Your task to perform on an android device: See recent photos Image 0: 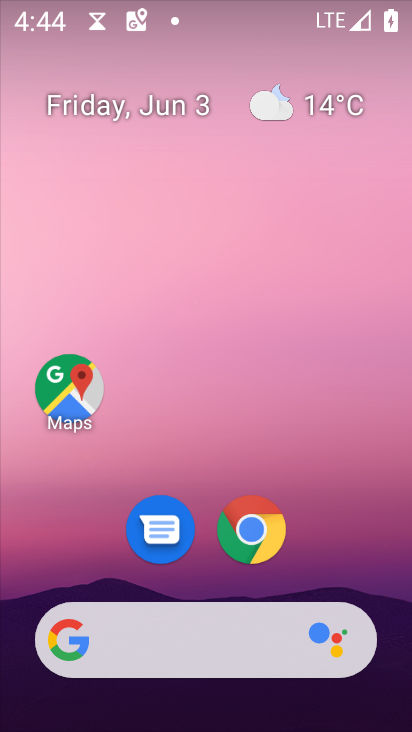
Step 0: drag from (358, 538) to (285, 9)
Your task to perform on an android device: See recent photos Image 1: 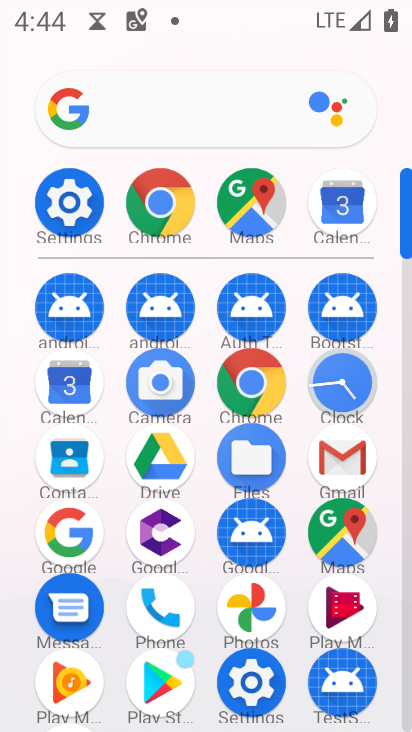
Step 1: click (258, 603)
Your task to perform on an android device: See recent photos Image 2: 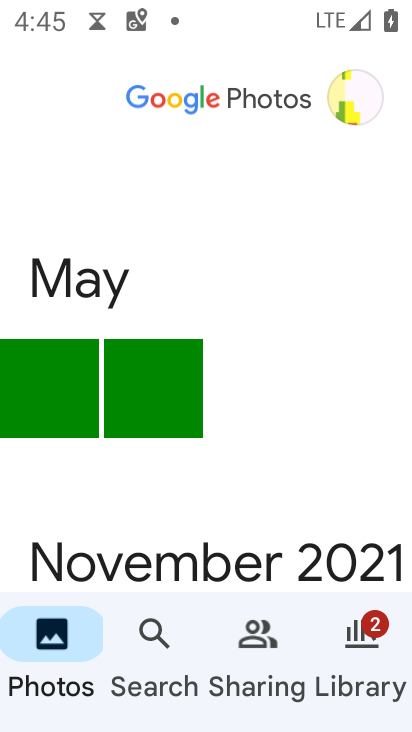
Step 2: task complete